Your task to perform on an android device: open app "DoorDash - Food Delivery" Image 0: 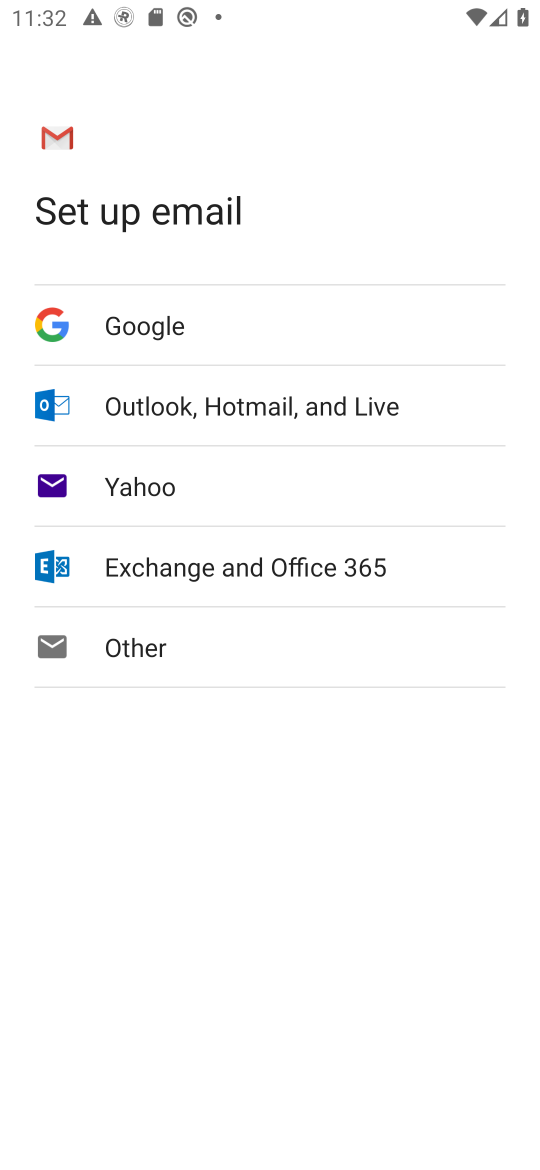
Step 0: press home button
Your task to perform on an android device: open app "DoorDash - Food Delivery" Image 1: 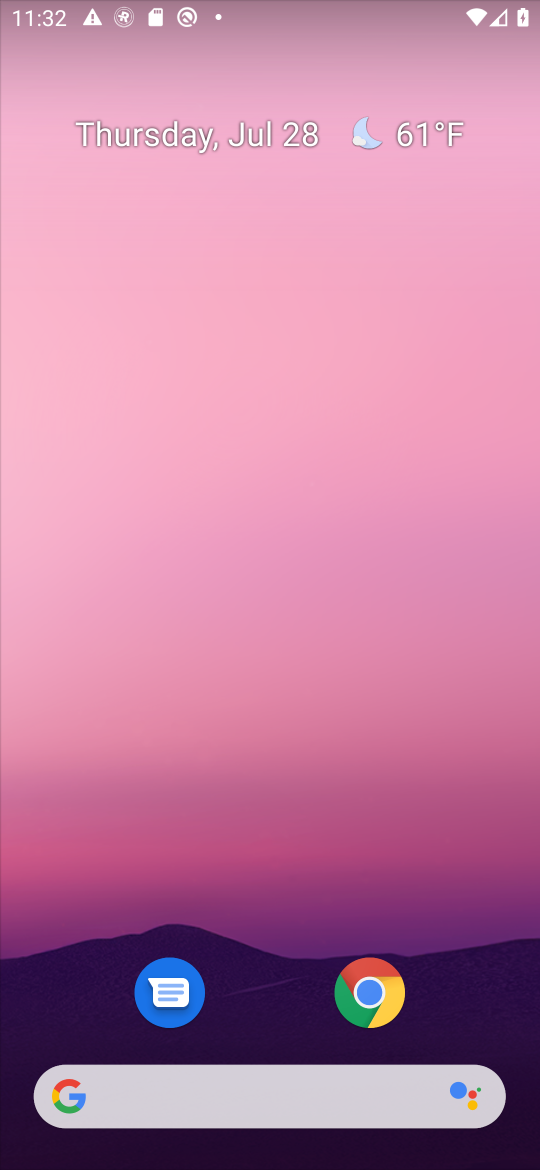
Step 1: drag from (233, 1098) to (265, 280)
Your task to perform on an android device: open app "DoorDash - Food Delivery" Image 2: 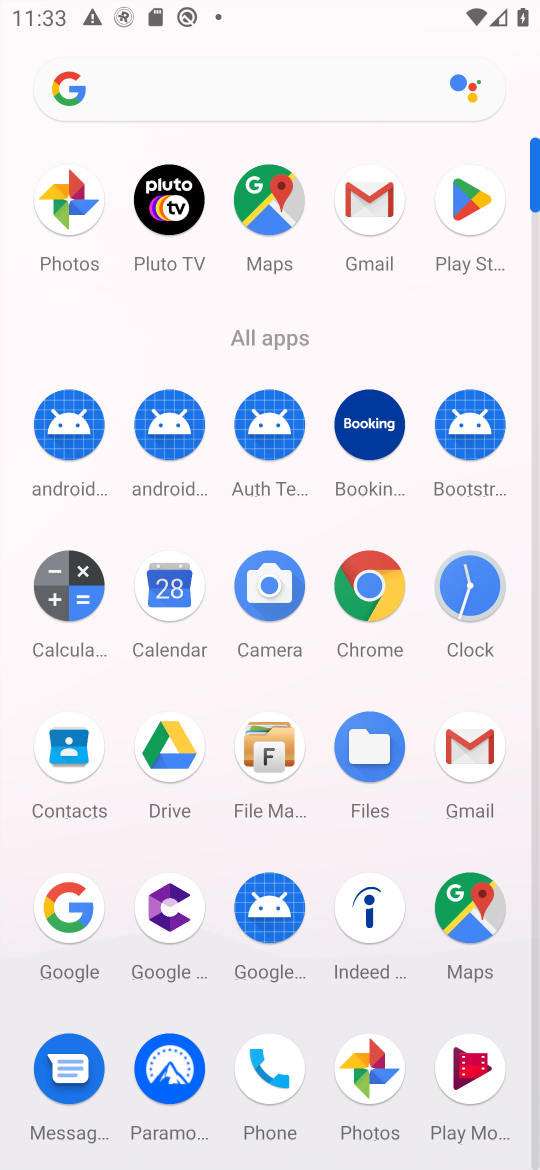
Step 2: click (465, 192)
Your task to perform on an android device: open app "DoorDash - Food Delivery" Image 3: 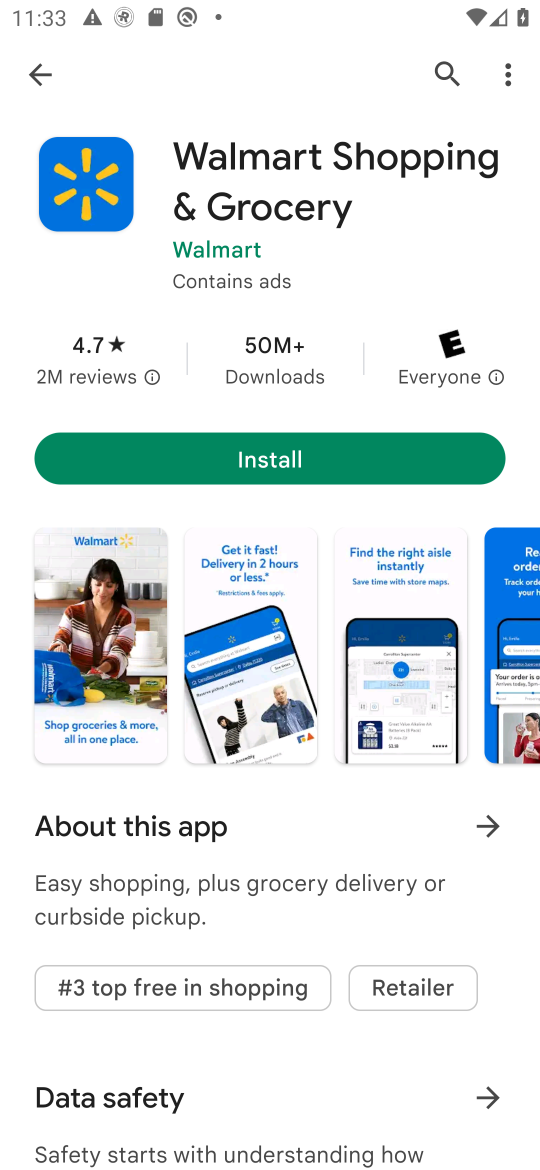
Step 3: click (444, 68)
Your task to perform on an android device: open app "DoorDash - Food Delivery" Image 4: 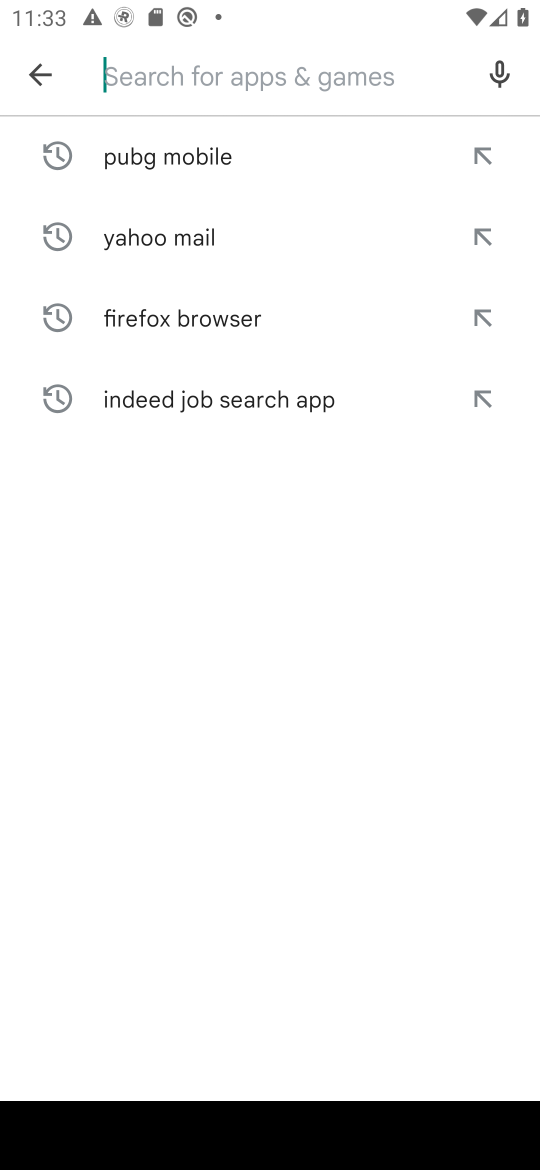
Step 4: type "DoorDash - Food Delivery"
Your task to perform on an android device: open app "DoorDash - Food Delivery" Image 5: 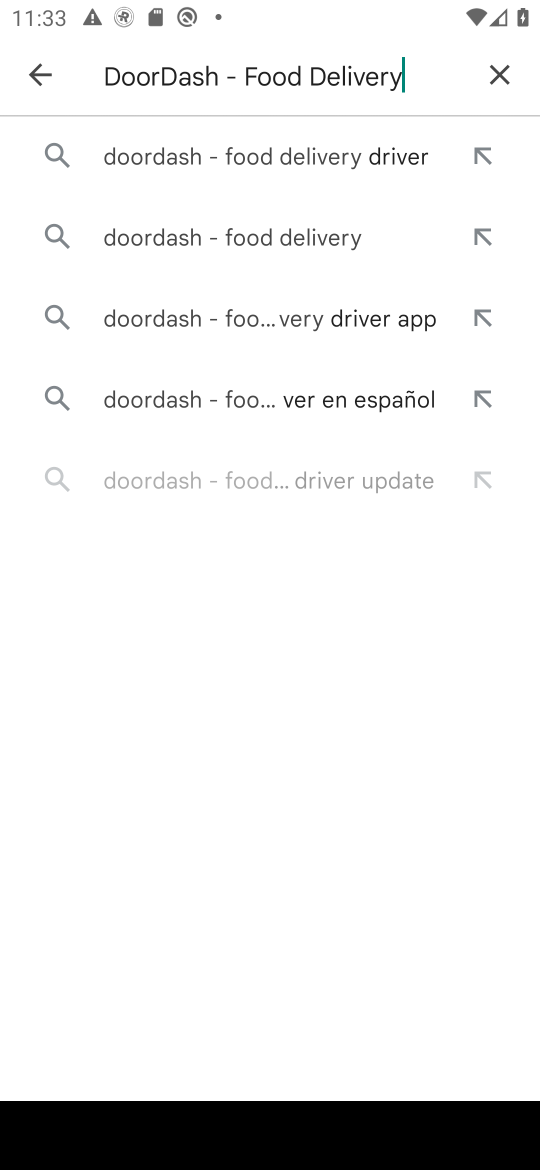
Step 5: type ""
Your task to perform on an android device: open app "DoorDash - Food Delivery" Image 6: 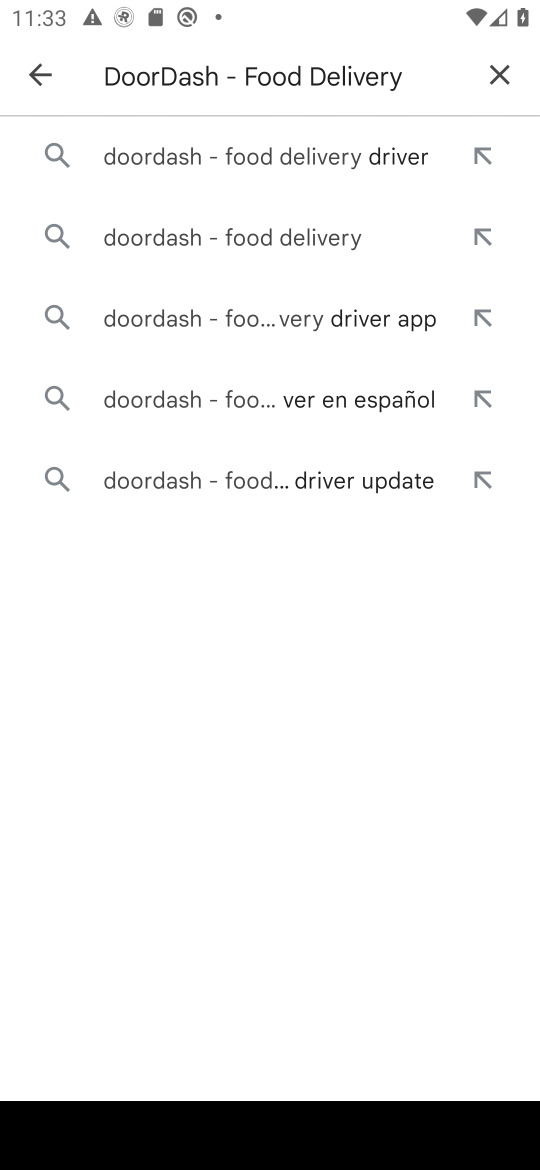
Step 6: click (209, 239)
Your task to perform on an android device: open app "DoorDash - Food Delivery" Image 7: 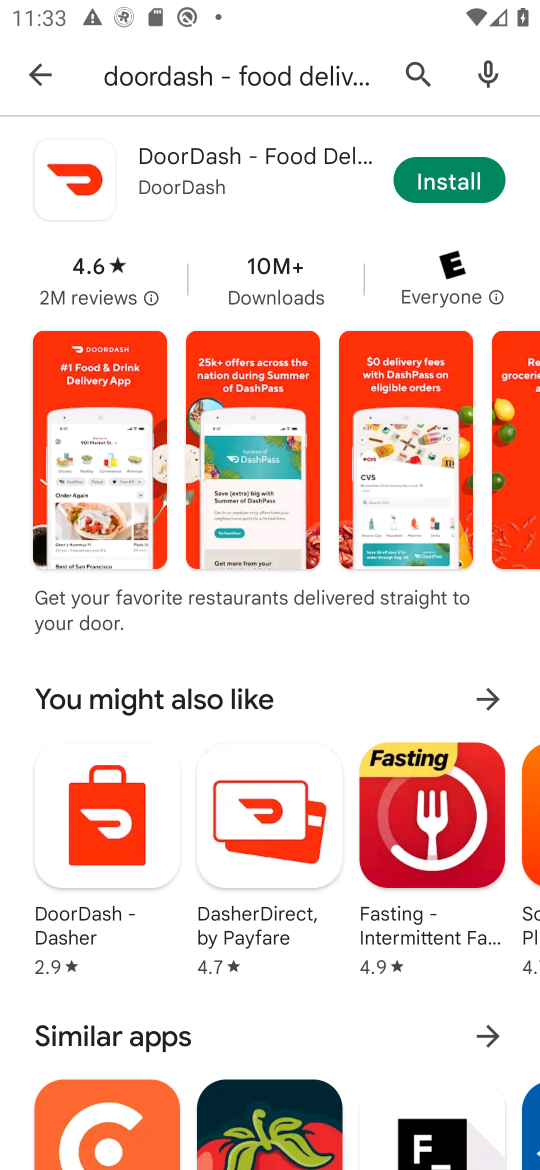
Step 7: task complete